Your task to perform on an android device: turn on priority inbox in the gmail app Image 0: 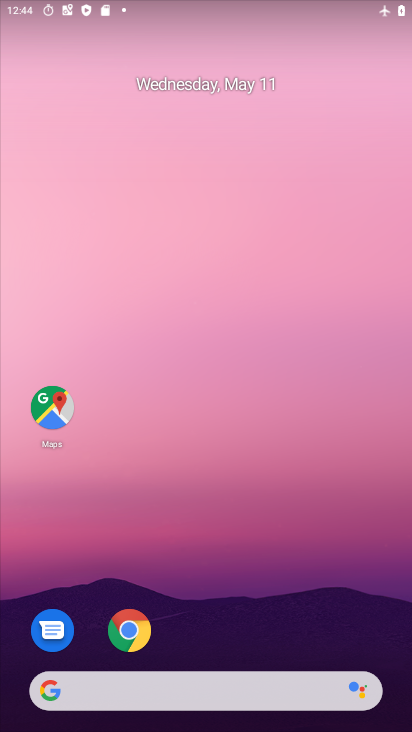
Step 0: drag from (246, 577) to (284, 87)
Your task to perform on an android device: turn on priority inbox in the gmail app Image 1: 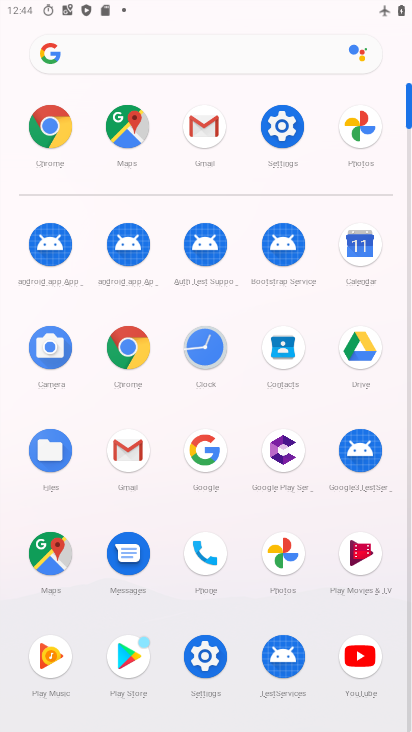
Step 1: click (199, 127)
Your task to perform on an android device: turn on priority inbox in the gmail app Image 2: 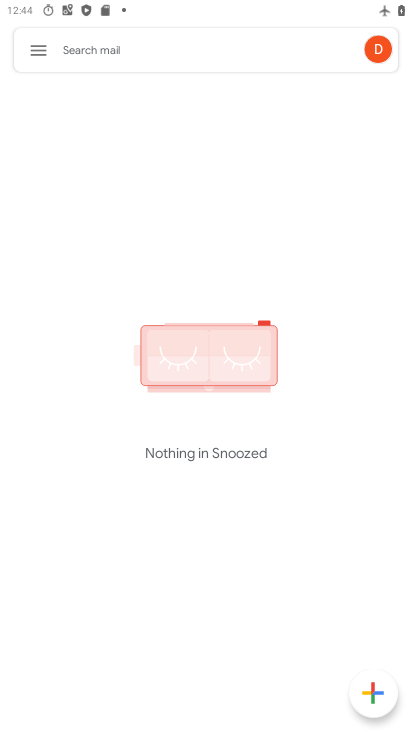
Step 2: click (26, 45)
Your task to perform on an android device: turn on priority inbox in the gmail app Image 3: 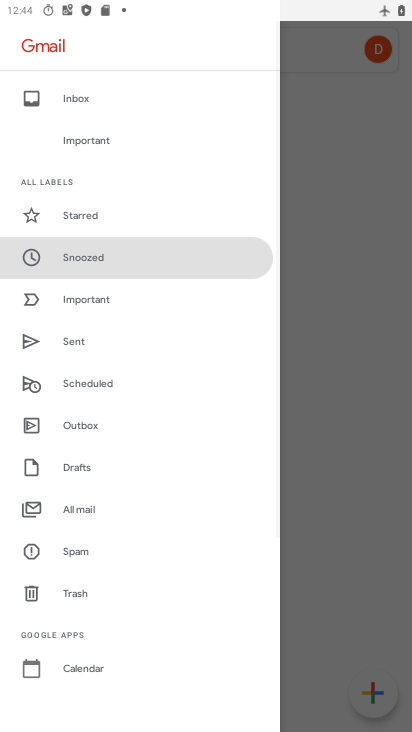
Step 3: drag from (110, 661) to (197, 193)
Your task to perform on an android device: turn on priority inbox in the gmail app Image 4: 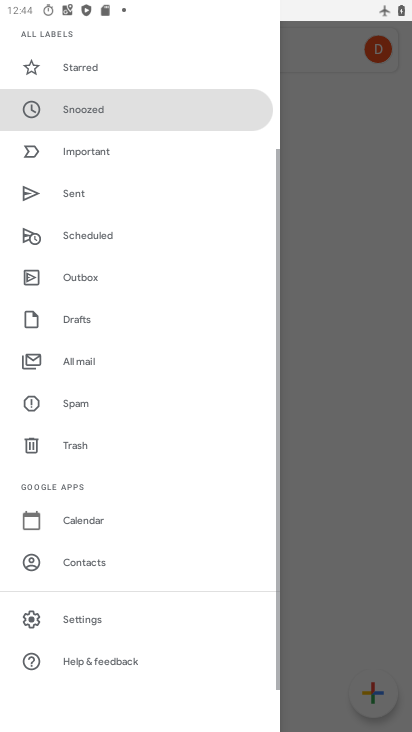
Step 4: click (94, 628)
Your task to perform on an android device: turn on priority inbox in the gmail app Image 5: 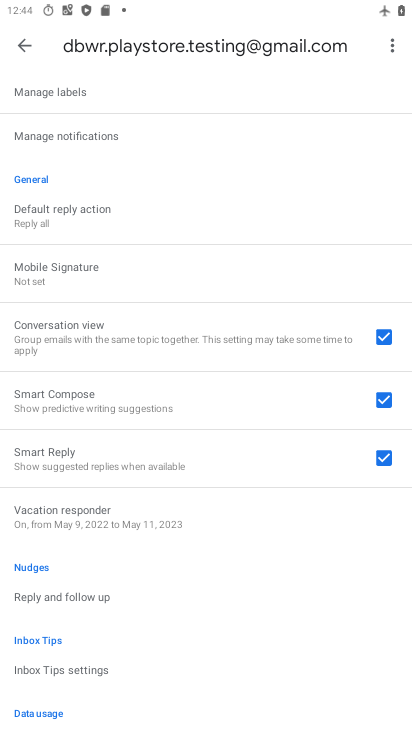
Step 5: drag from (157, 58) to (164, 406)
Your task to perform on an android device: turn on priority inbox in the gmail app Image 6: 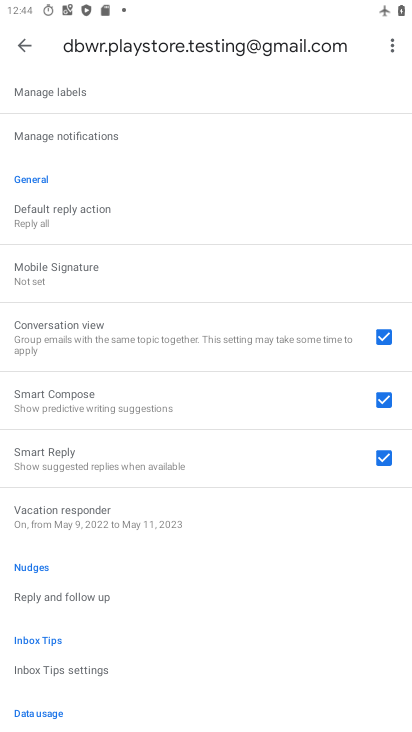
Step 6: drag from (120, 190) to (137, 481)
Your task to perform on an android device: turn on priority inbox in the gmail app Image 7: 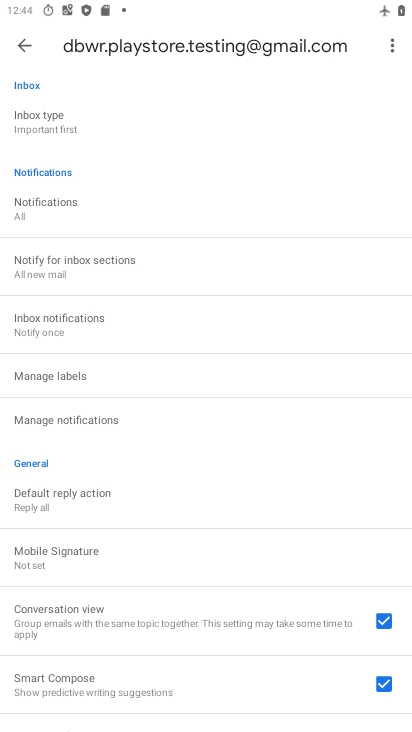
Step 7: drag from (113, 176) to (142, 417)
Your task to perform on an android device: turn on priority inbox in the gmail app Image 8: 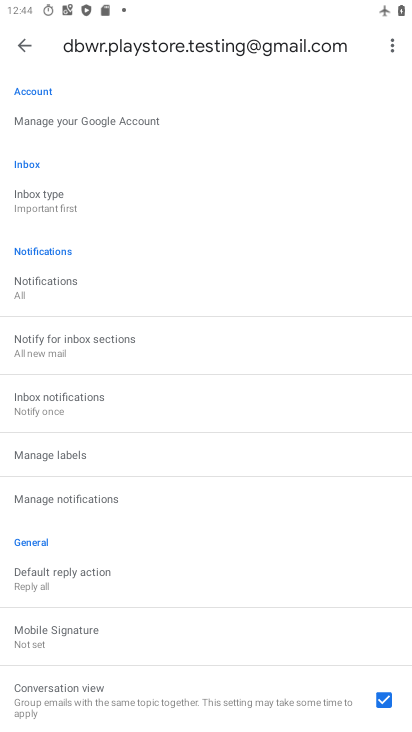
Step 8: click (48, 201)
Your task to perform on an android device: turn on priority inbox in the gmail app Image 9: 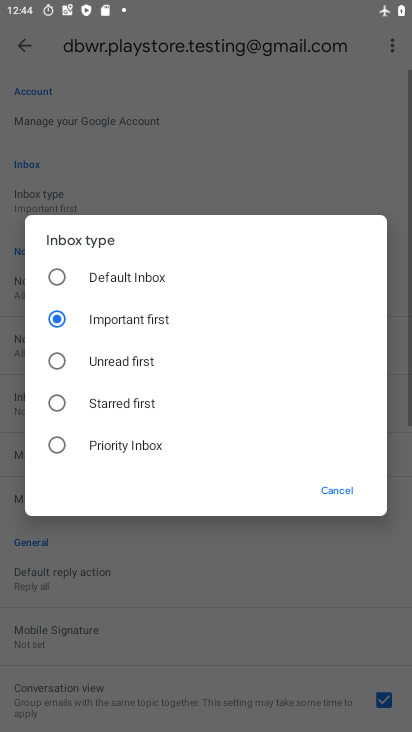
Step 9: click (137, 271)
Your task to perform on an android device: turn on priority inbox in the gmail app Image 10: 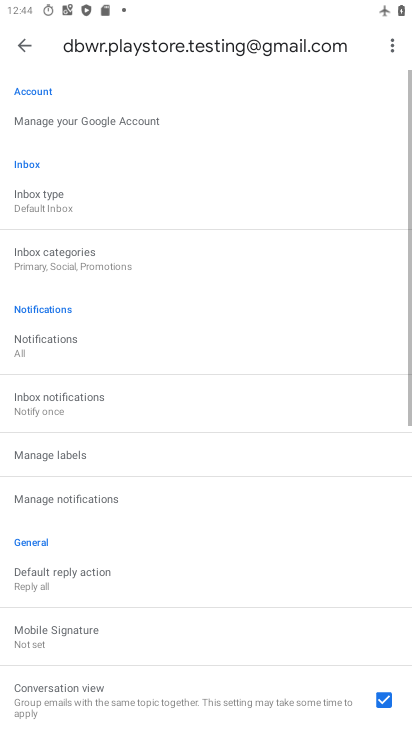
Step 10: click (67, 262)
Your task to perform on an android device: turn on priority inbox in the gmail app Image 11: 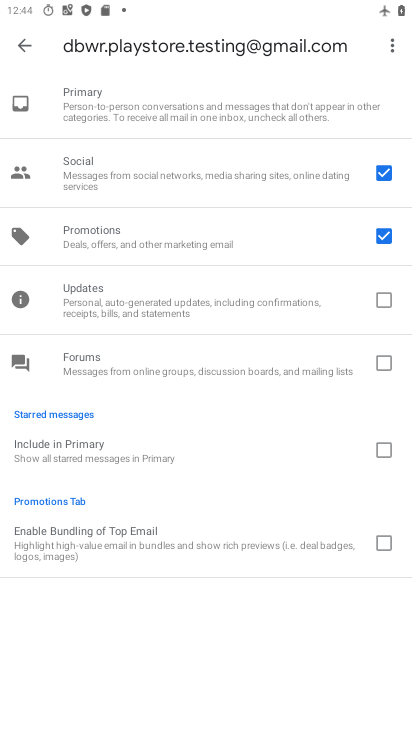
Step 11: click (21, 43)
Your task to perform on an android device: turn on priority inbox in the gmail app Image 12: 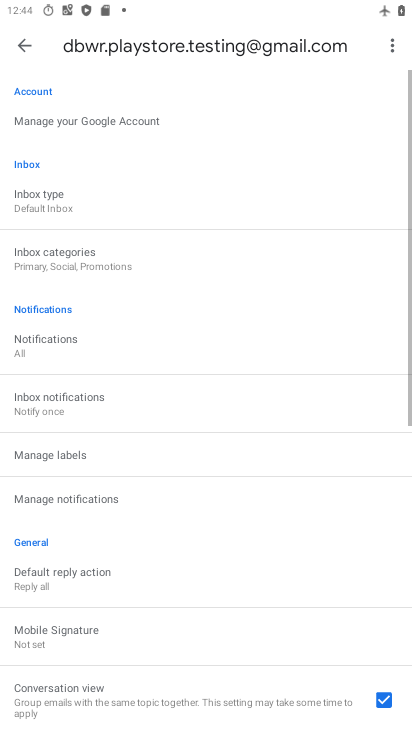
Step 12: click (38, 212)
Your task to perform on an android device: turn on priority inbox in the gmail app Image 13: 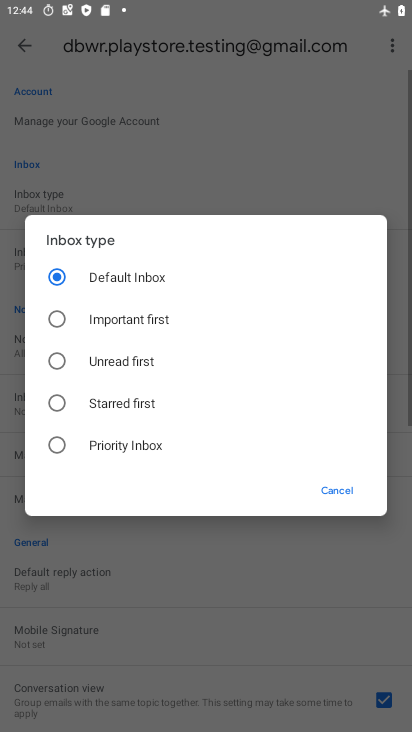
Step 13: click (124, 449)
Your task to perform on an android device: turn on priority inbox in the gmail app Image 14: 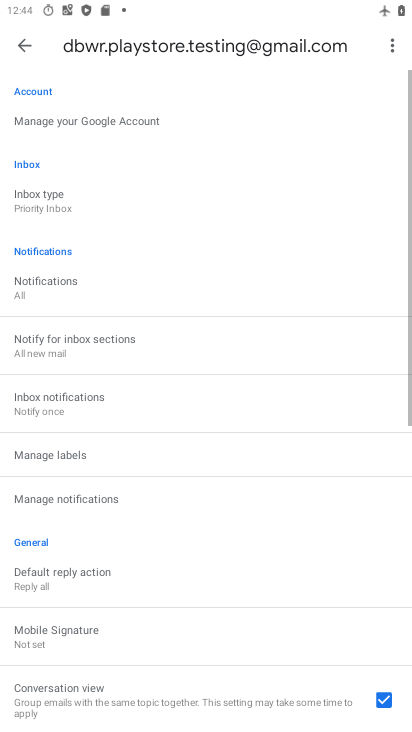
Step 14: task complete